Your task to perform on an android device: Show me popular videos on Youtube Image 0: 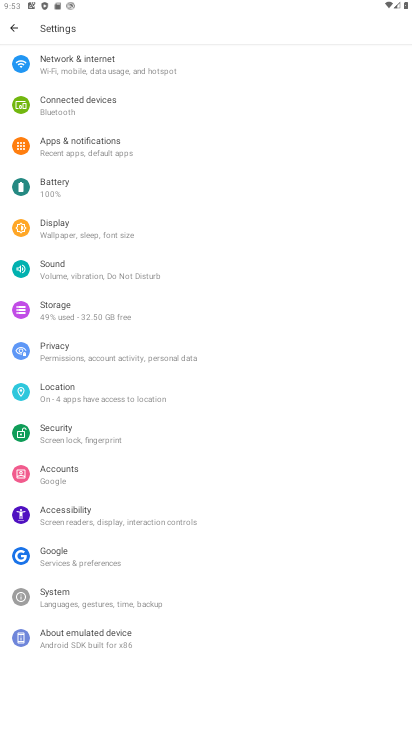
Step 0: press home button
Your task to perform on an android device: Show me popular videos on Youtube Image 1: 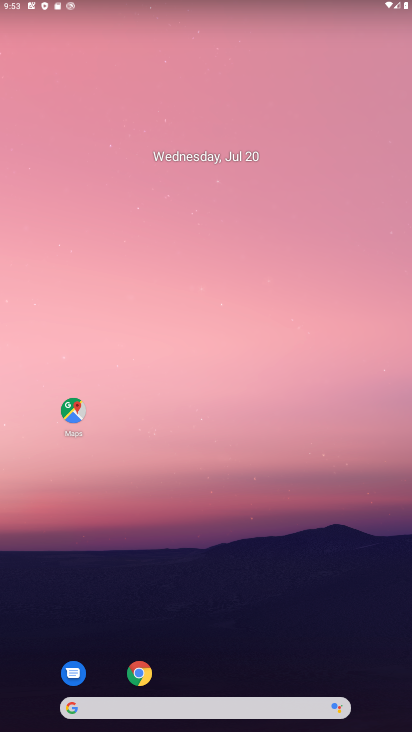
Step 1: drag from (181, 707) to (240, 53)
Your task to perform on an android device: Show me popular videos on Youtube Image 2: 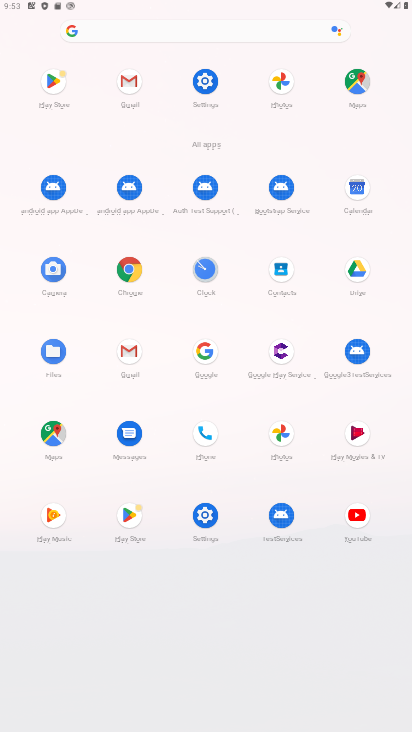
Step 2: click (360, 515)
Your task to perform on an android device: Show me popular videos on Youtube Image 3: 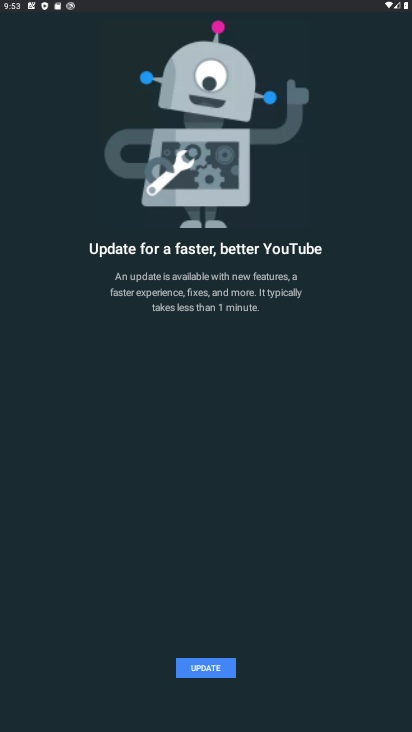
Step 3: click (215, 668)
Your task to perform on an android device: Show me popular videos on Youtube Image 4: 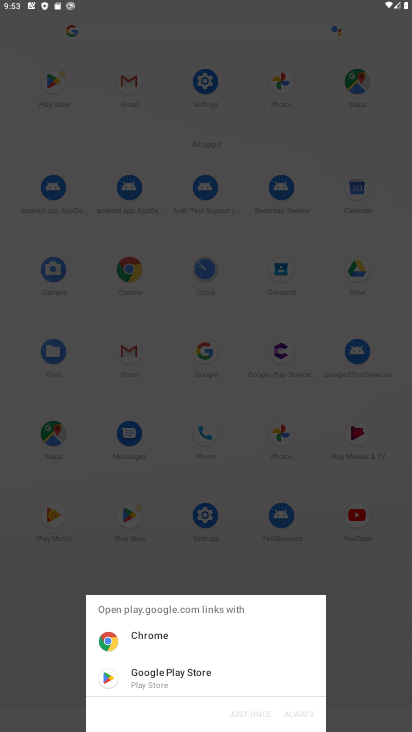
Step 4: click (194, 675)
Your task to perform on an android device: Show me popular videos on Youtube Image 5: 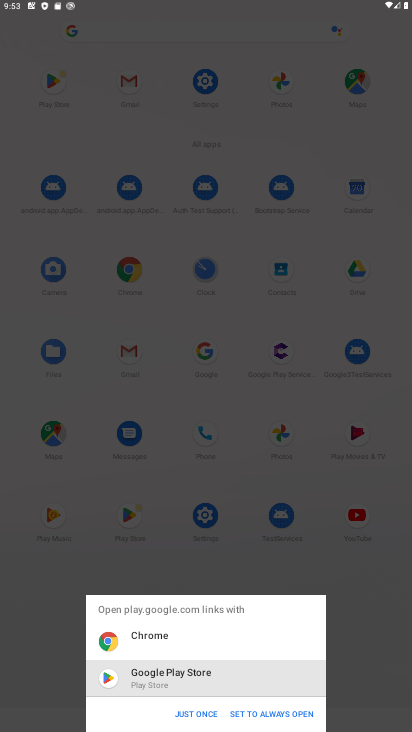
Step 5: click (195, 712)
Your task to perform on an android device: Show me popular videos on Youtube Image 6: 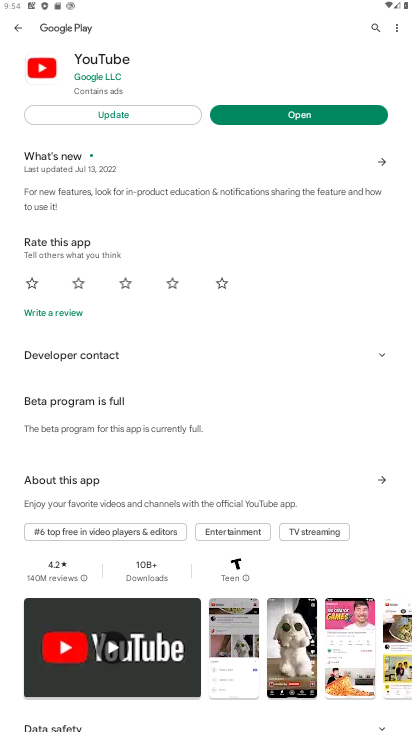
Step 6: click (120, 116)
Your task to perform on an android device: Show me popular videos on Youtube Image 7: 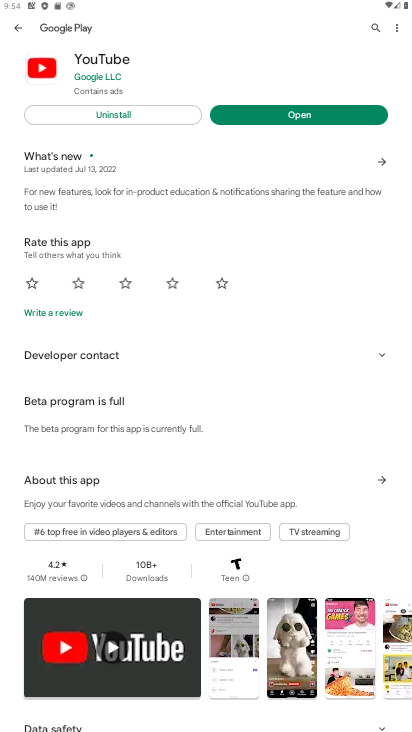
Step 7: click (303, 121)
Your task to perform on an android device: Show me popular videos on Youtube Image 8: 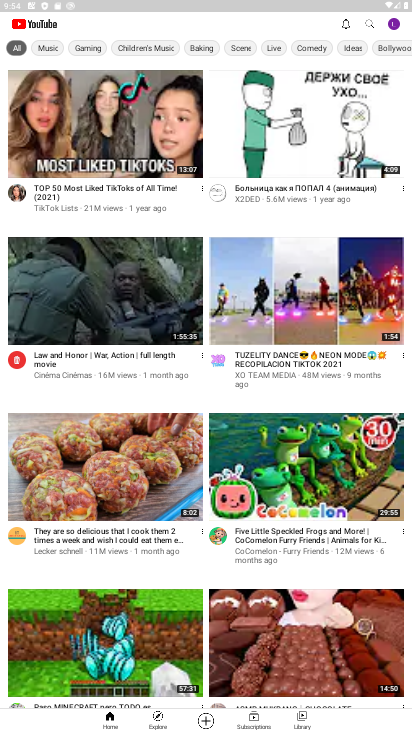
Step 8: click (373, 24)
Your task to perform on an android device: Show me popular videos on Youtube Image 9: 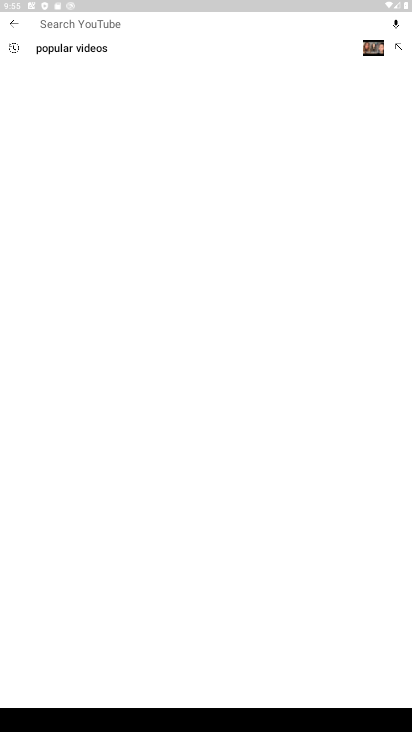
Step 9: click (60, 49)
Your task to perform on an android device: Show me popular videos on Youtube Image 10: 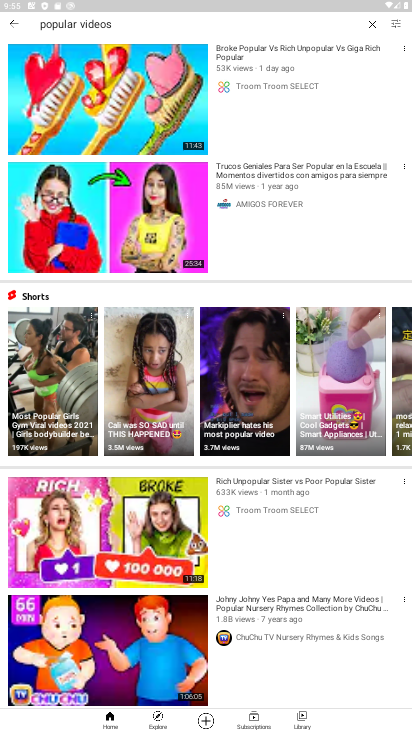
Step 10: task complete